Your task to perform on an android device: Search for logitech g502 on amazon.com, select the first entry, and add it to the cart. Image 0: 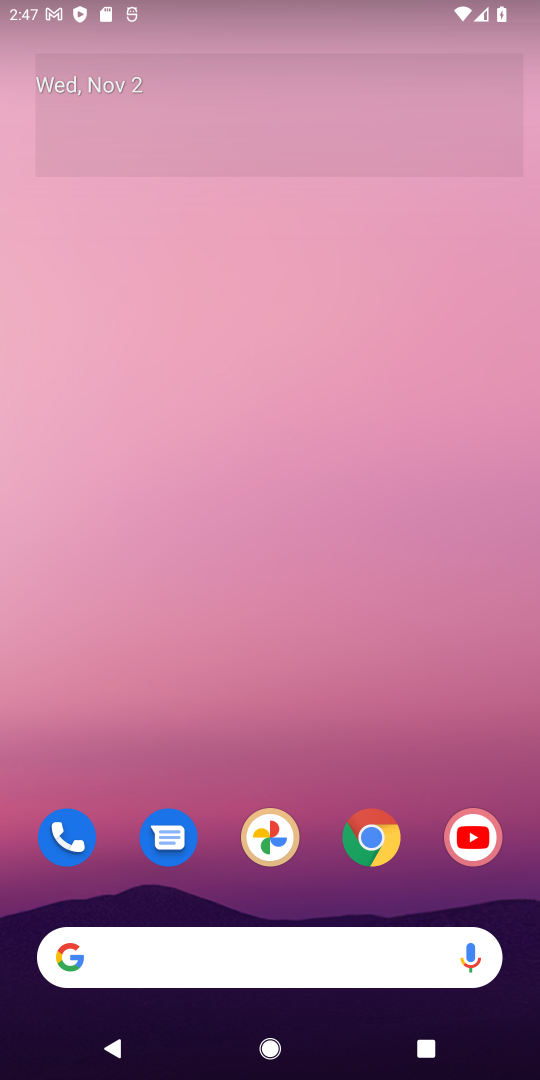
Step 0: press home button
Your task to perform on an android device: Search for logitech g502 on amazon.com, select the first entry, and add it to the cart. Image 1: 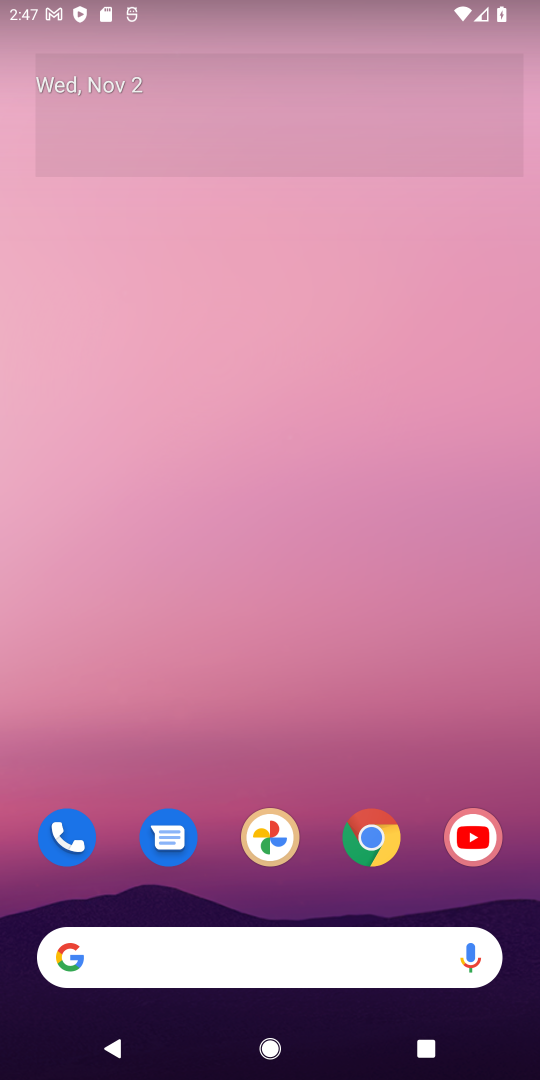
Step 1: drag from (314, 795) to (342, 66)
Your task to perform on an android device: Search for logitech g502 on amazon.com, select the first entry, and add it to the cart. Image 2: 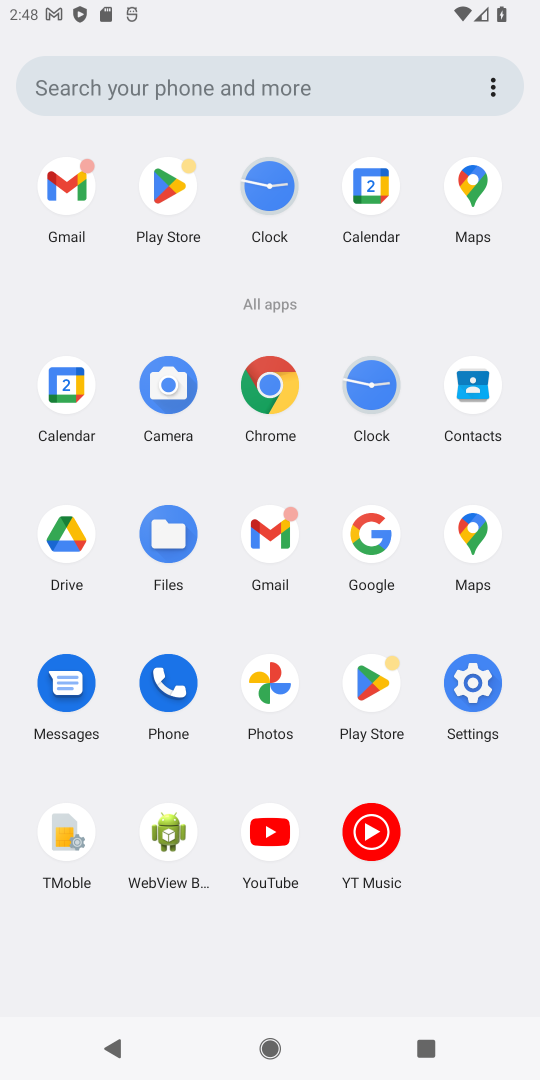
Step 2: click (265, 381)
Your task to perform on an android device: Search for logitech g502 on amazon.com, select the first entry, and add it to the cart. Image 3: 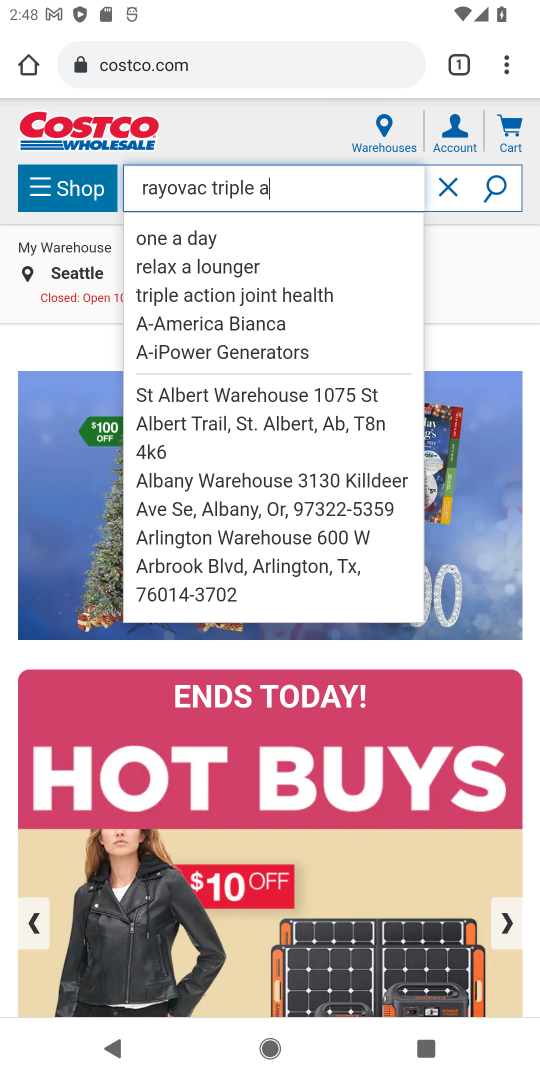
Step 3: click (149, 56)
Your task to perform on an android device: Search for logitech g502 on amazon.com, select the first entry, and add it to the cart. Image 4: 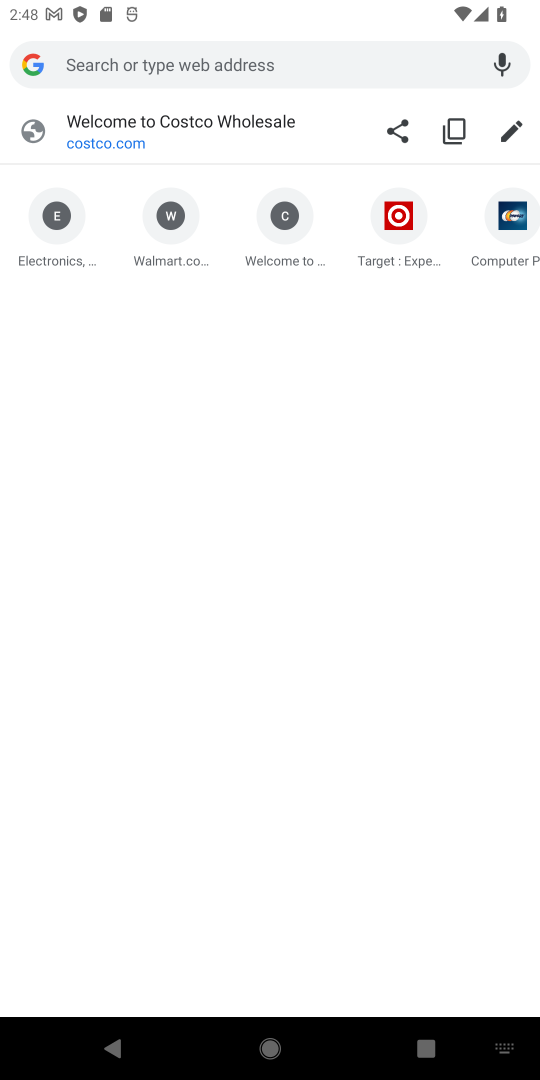
Step 4: type "amazon"
Your task to perform on an android device: Search for logitech g502 on amazon.com, select the first entry, and add it to the cart. Image 5: 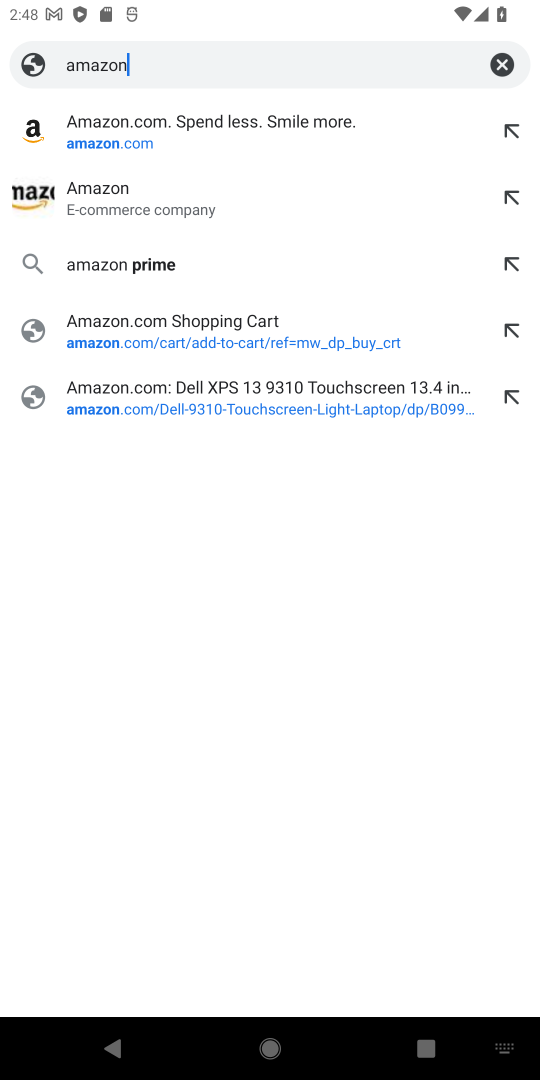
Step 5: click (140, 140)
Your task to perform on an android device: Search for logitech g502 on amazon.com, select the first entry, and add it to the cart. Image 6: 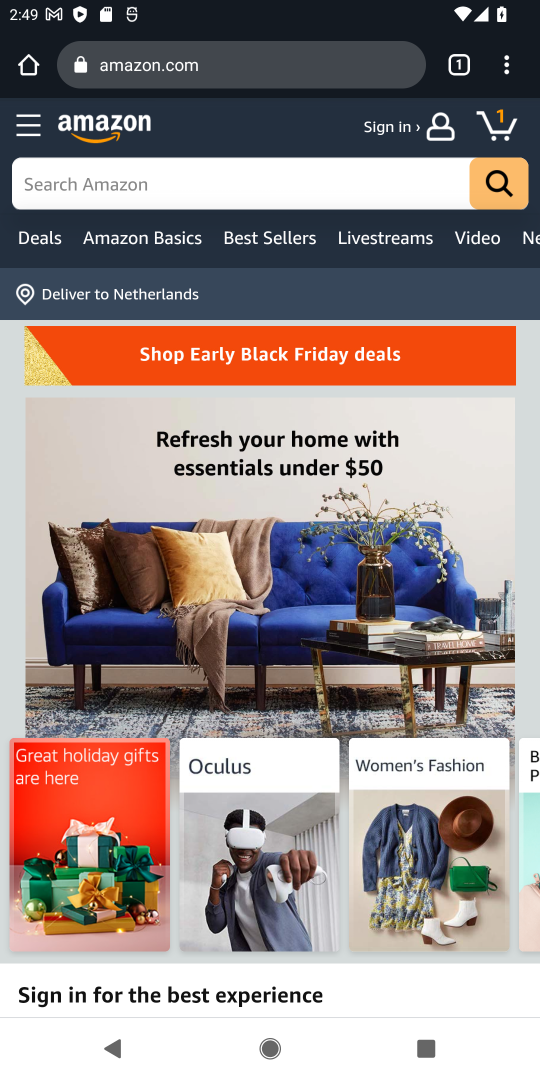
Step 6: click (97, 185)
Your task to perform on an android device: Search for logitech g502 on amazon.com, select the first entry, and add it to the cart. Image 7: 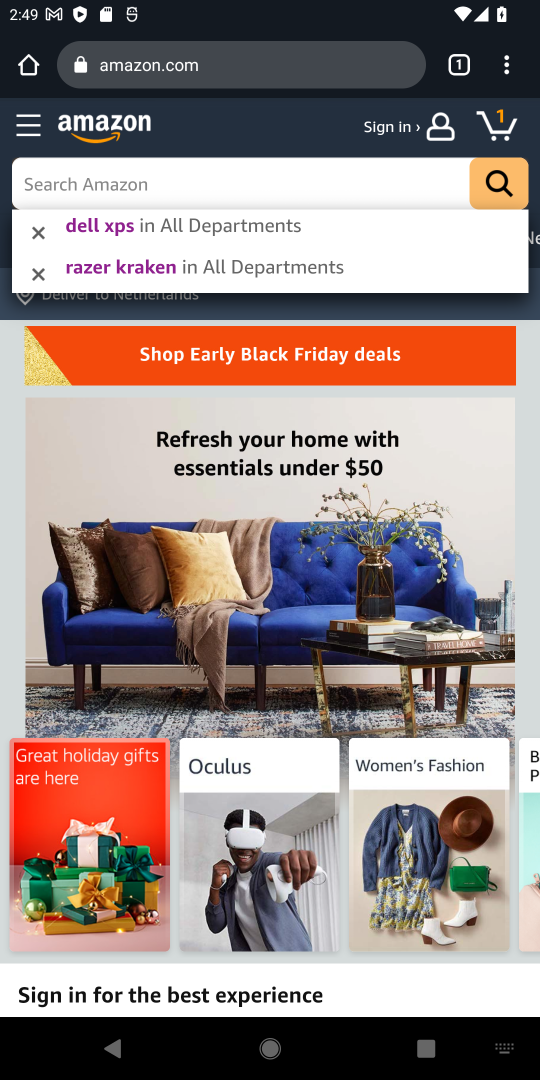
Step 7: type "logitech g502"
Your task to perform on an android device: Search for logitech g502 on amazon.com, select the first entry, and add it to the cart. Image 8: 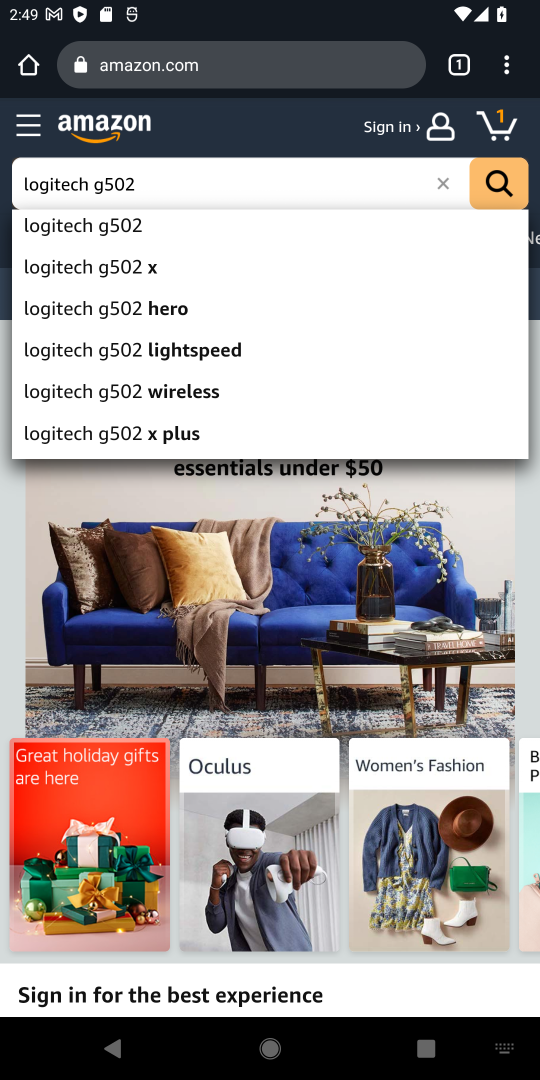
Step 8: click (156, 223)
Your task to perform on an android device: Search for logitech g502 on amazon.com, select the first entry, and add it to the cart. Image 9: 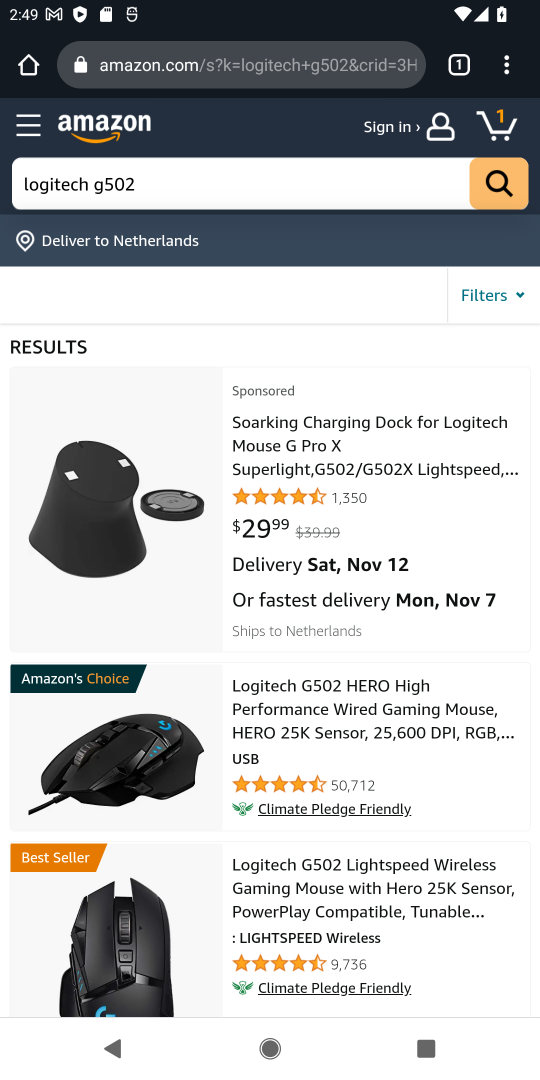
Step 9: click (292, 710)
Your task to perform on an android device: Search for logitech g502 on amazon.com, select the first entry, and add it to the cart. Image 10: 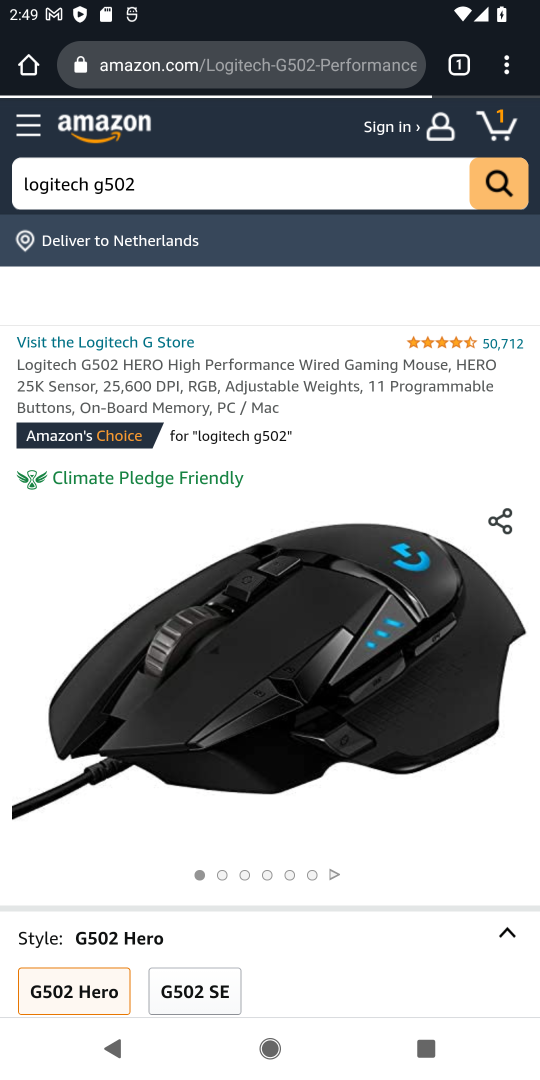
Step 10: drag from (390, 884) to (393, 373)
Your task to perform on an android device: Search for logitech g502 on amazon.com, select the first entry, and add it to the cart. Image 11: 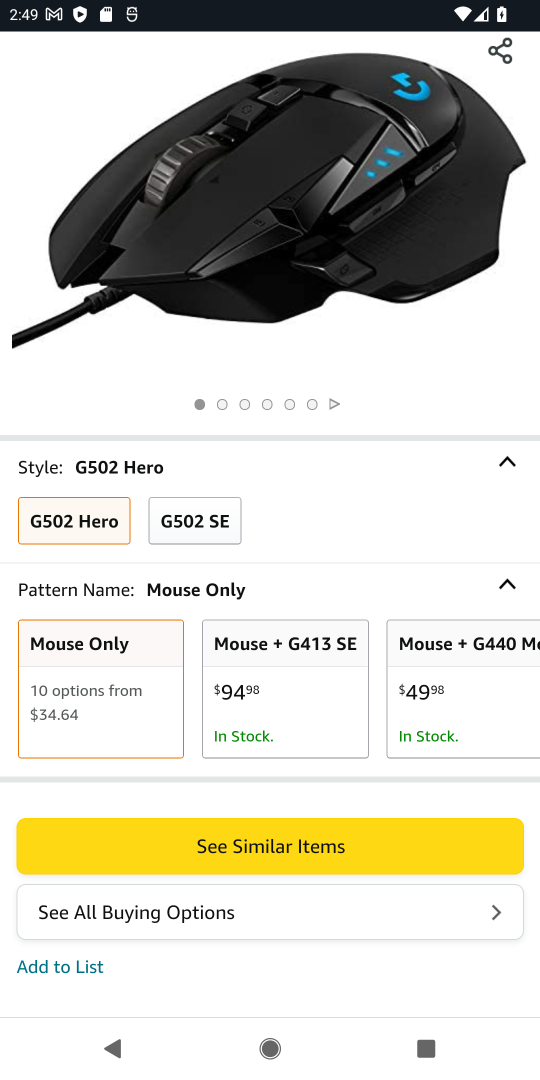
Step 11: press back button
Your task to perform on an android device: Search for logitech g502 on amazon.com, select the first entry, and add it to the cart. Image 12: 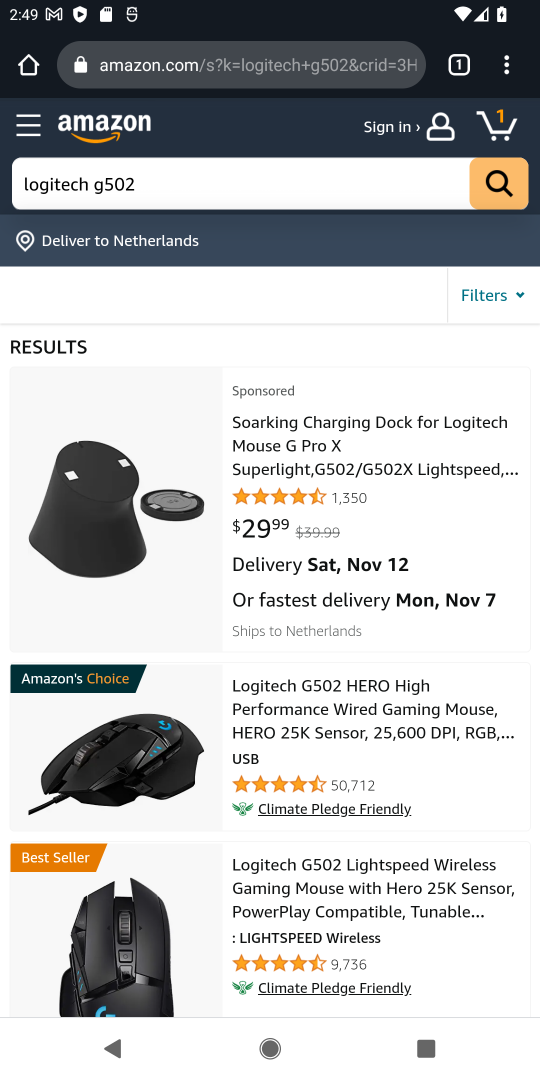
Step 12: drag from (284, 857) to (318, 465)
Your task to perform on an android device: Search for logitech g502 on amazon.com, select the first entry, and add it to the cart. Image 13: 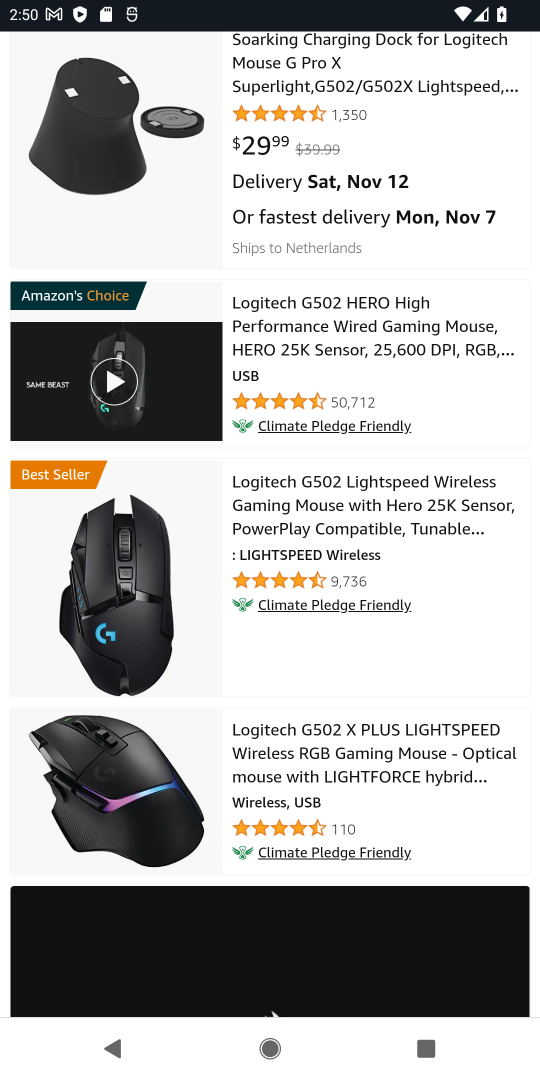
Step 13: click (316, 537)
Your task to perform on an android device: Search for logitech g502 on amazon.com, select the first entry, and add it to the cart. Image 14: 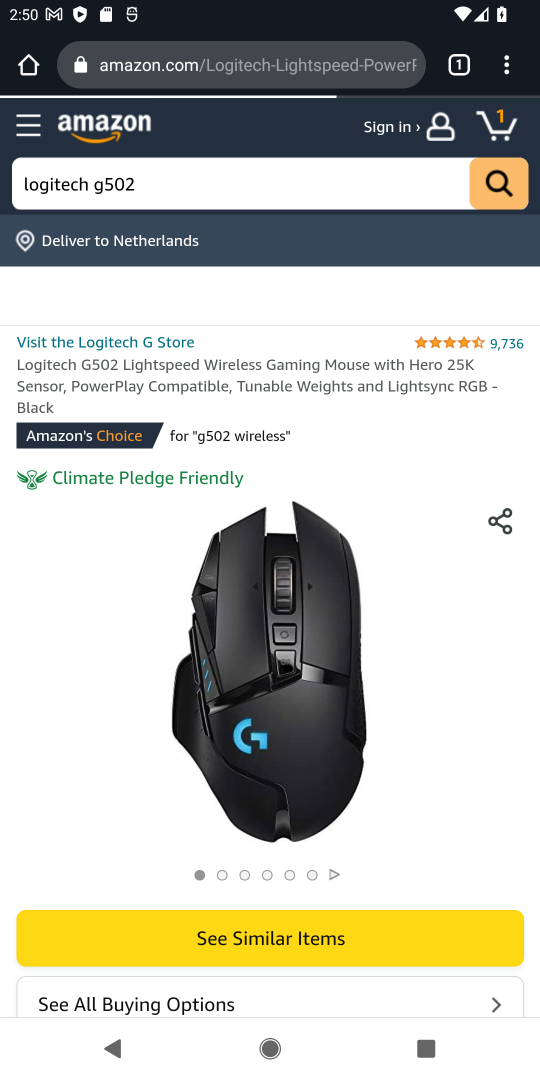
Step 14: drag from (390, 889) to (411, 571)
Your task to perform on an android device: Search for logitech g502 on amazon.com, select the first entry, and add it to the cart. Image 15: 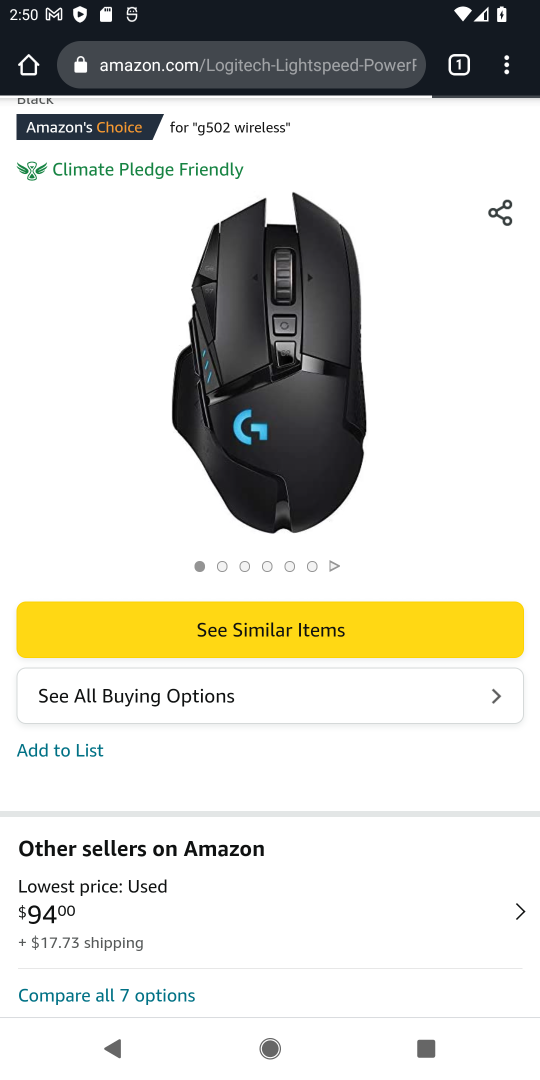
Step 15: press back button
Your task to perform on an android device: Search for logitech g502 on amazon.com, select the first entry, and add it to the cart. Image 16: 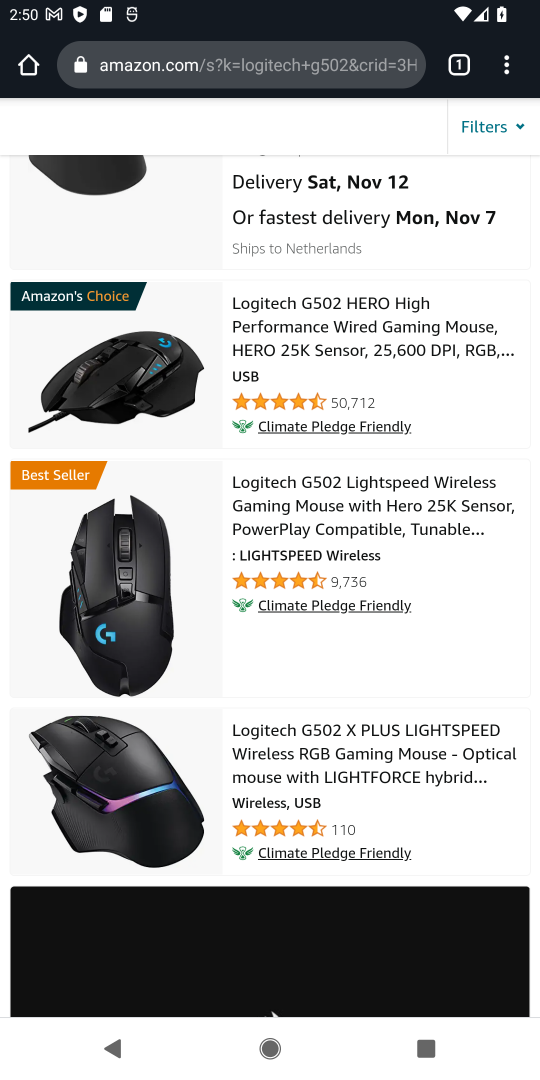
Step 16: click (302, 759)
Your task to perform on an android device: Search for logitech g502 on amazon.com, select the first entry, and add it to the cart. Image 17: 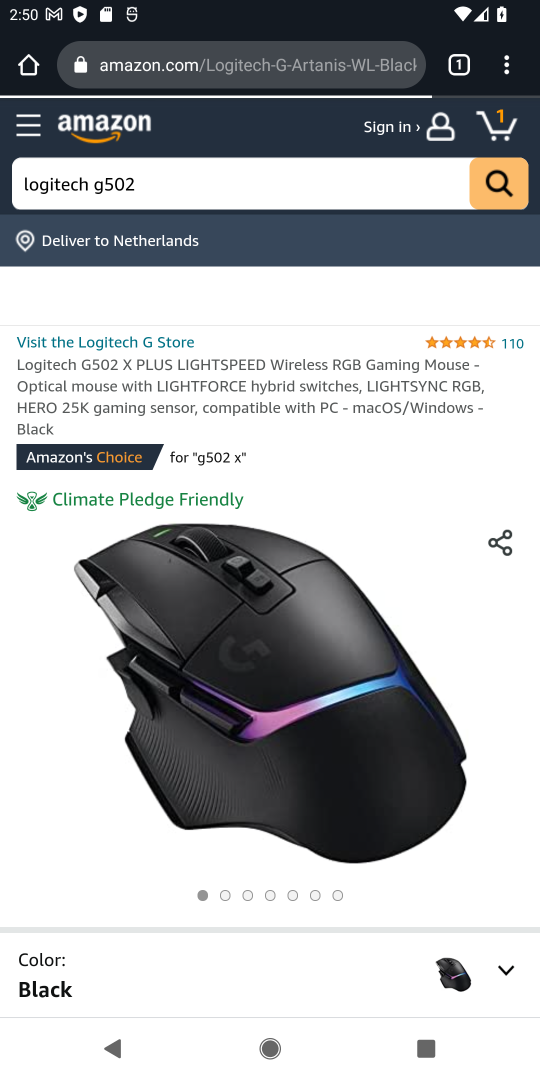
Step 17: drag from (426, 897) to (494, 306)
Your task to perform on an android device: Search for logitech g502 on amazon.com, select the first entry, and add it to the cart. Image 18: 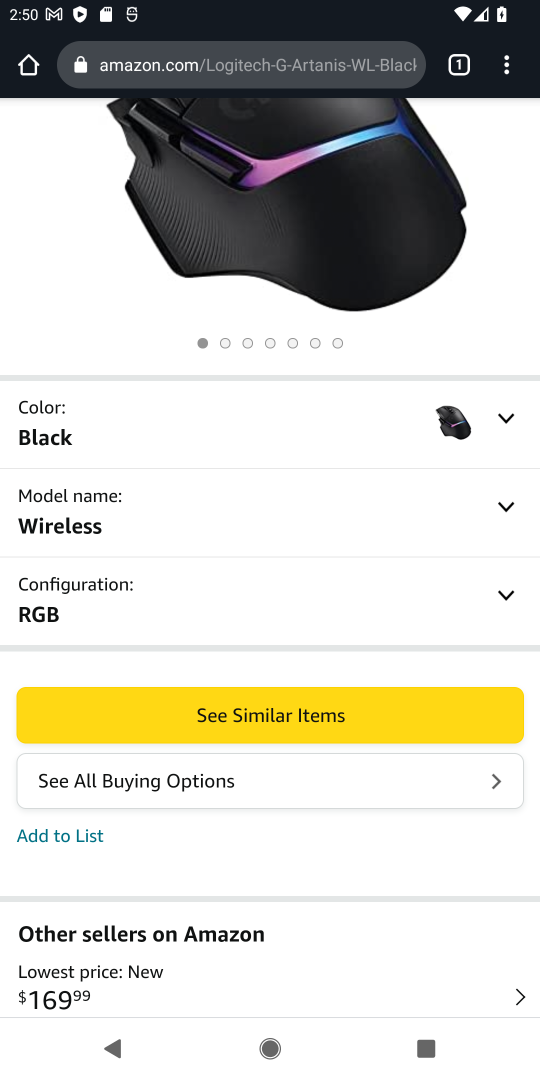
Step 18: click (259, 726)
Your task to perform on an android device: Search for logitech g502 on amazon.com, select the first entry, and add it to the cart. Image 19: 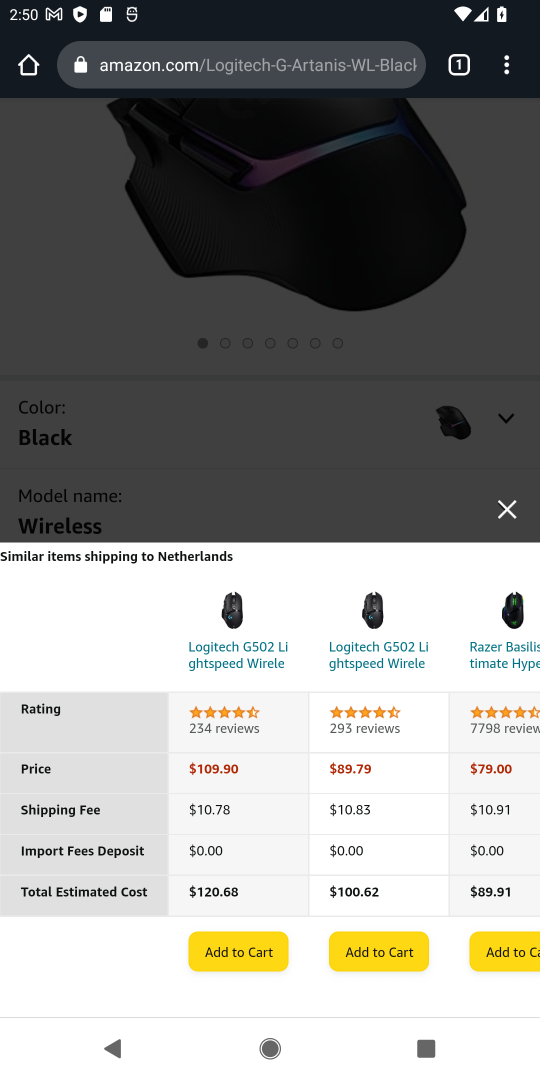
Step 19: click (239, 954)
Your task to perform on an android device: Search for logitech g502 on amazon.com, select the first entry, and add it to the cart. Image 20: 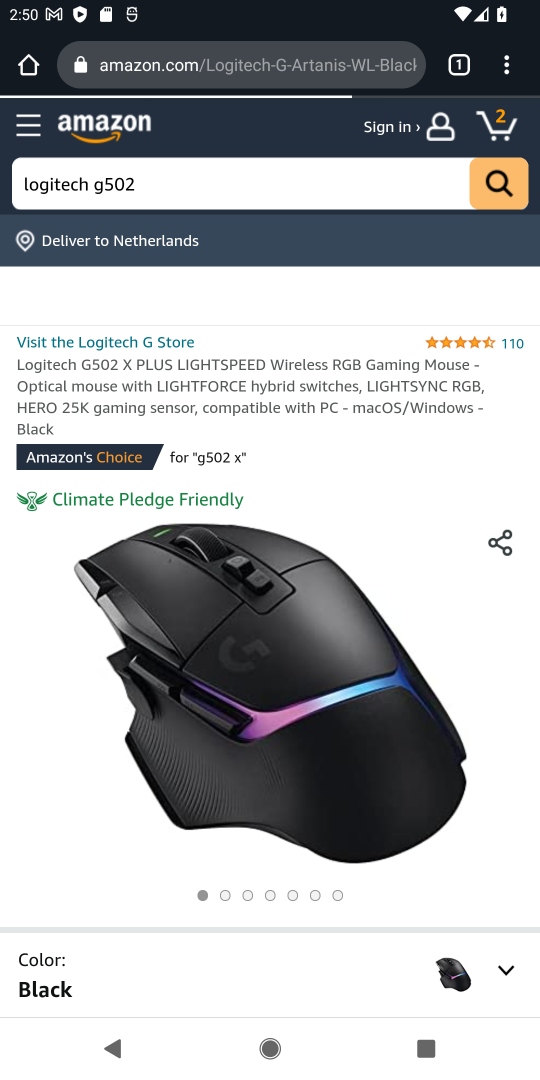
Step 20: click (494, 120)
Your task to perform on an android device: Search for logitech g502 on amazon.com, select the first entry, and add it to the cart. Image 21: 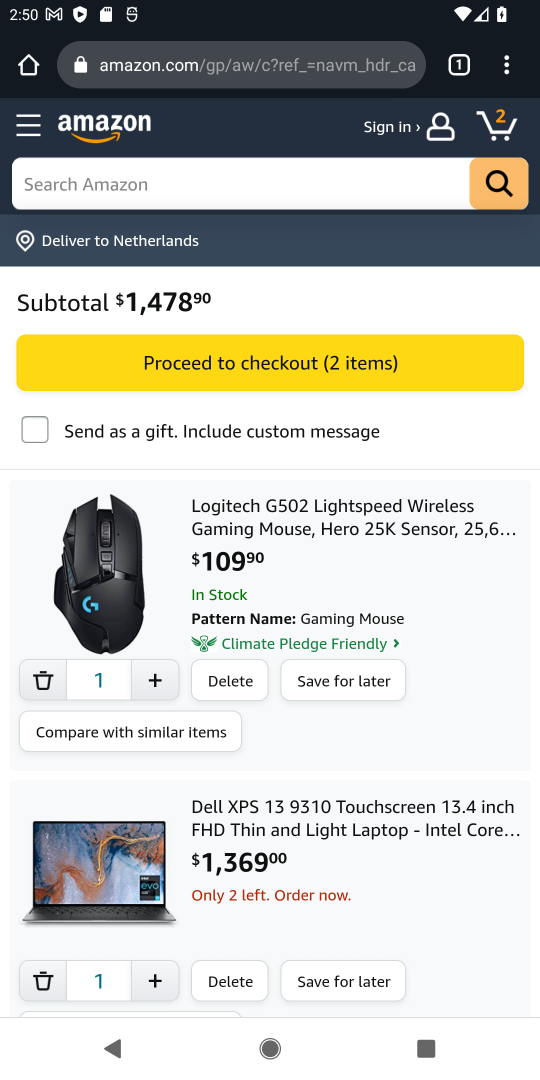
Step 21: task complete